Your task to perform on an android device: Turn off the flashlight Image 0: 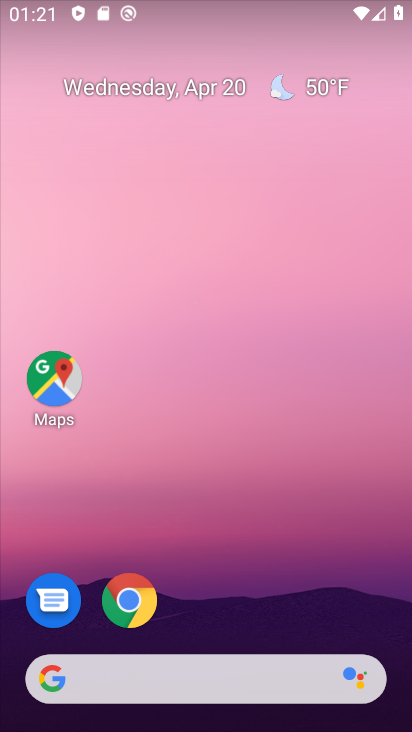
Step 0: drag from (289, 8) to (242, 478)
Your task to perform on an android device: Turn off the flashlight Image 1: 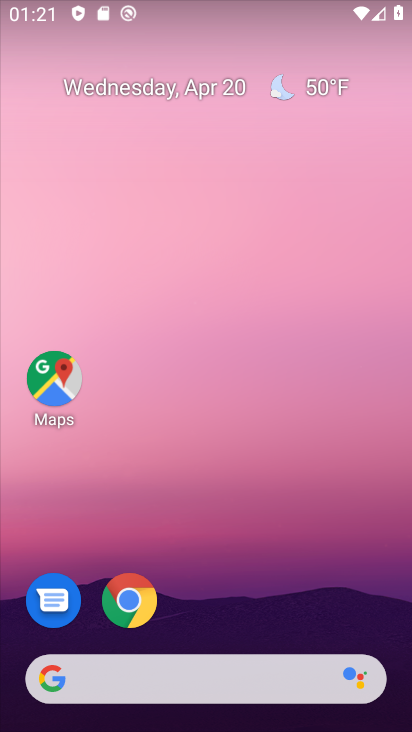
Step 1: task complete